Your task to perform on an android device: Go to Amazon Image 0: 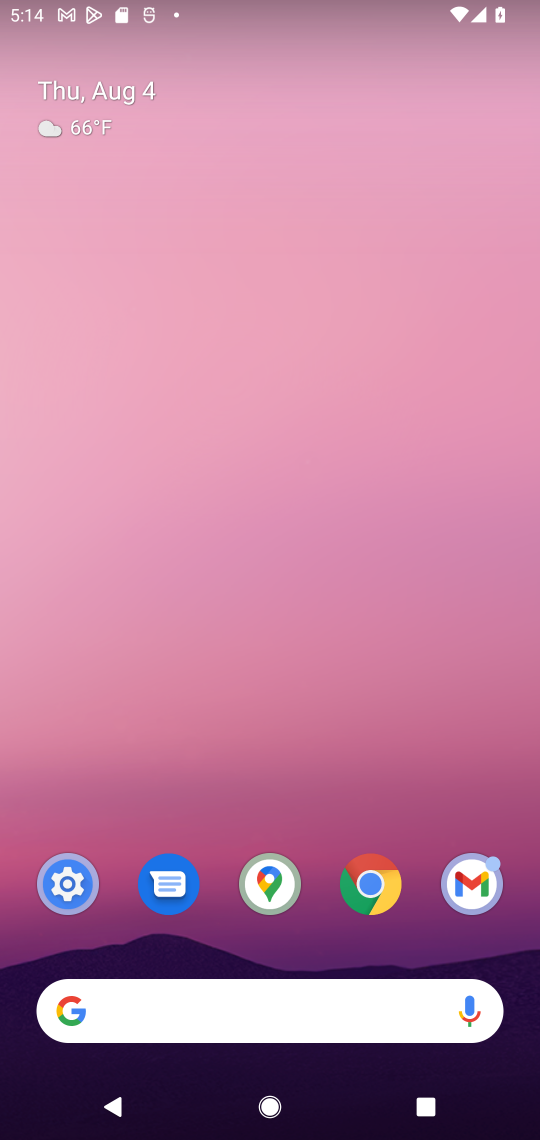
Step 0: click (362, 903)
Your task to perform on an android device: Go to Amazon Image 1: 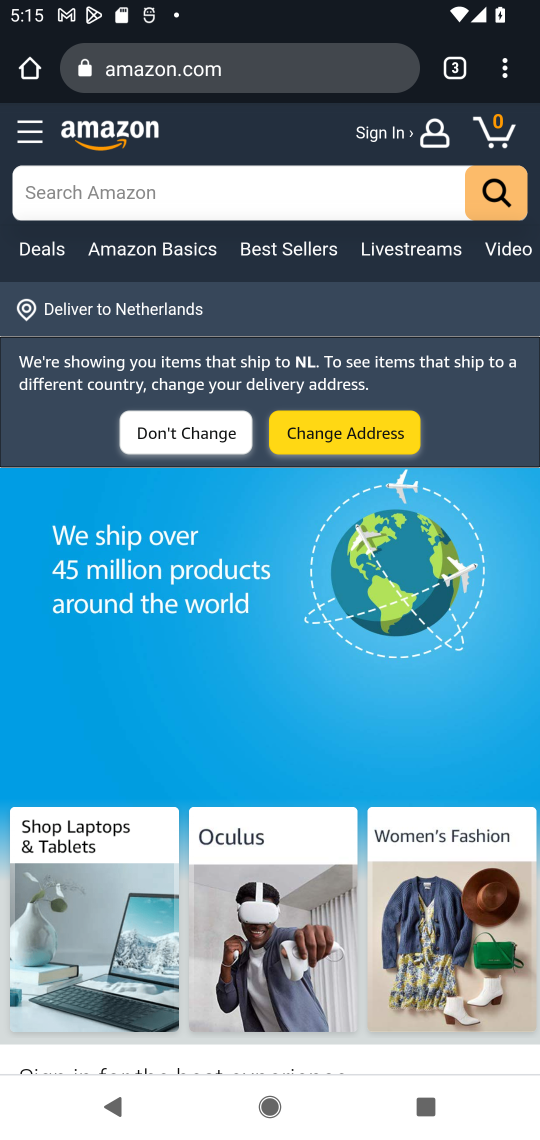
Step 1: task complete